Your task to perform on an android device: Go to notification settings Image 0: 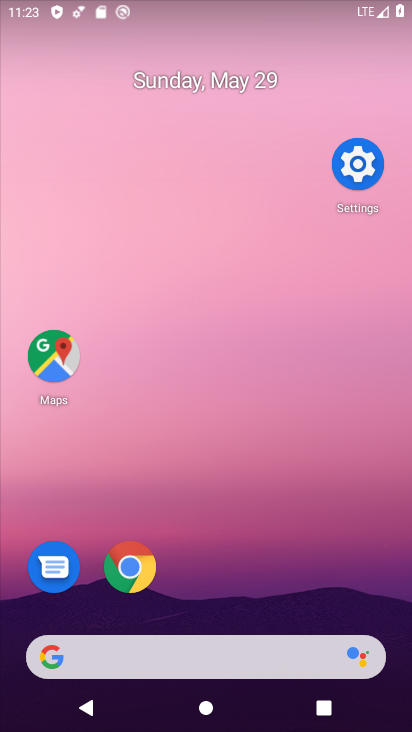
Step 0: drag from (347, 555) to (279, 162)
Your task to perform on an android device: Go to notification settings Image 1: 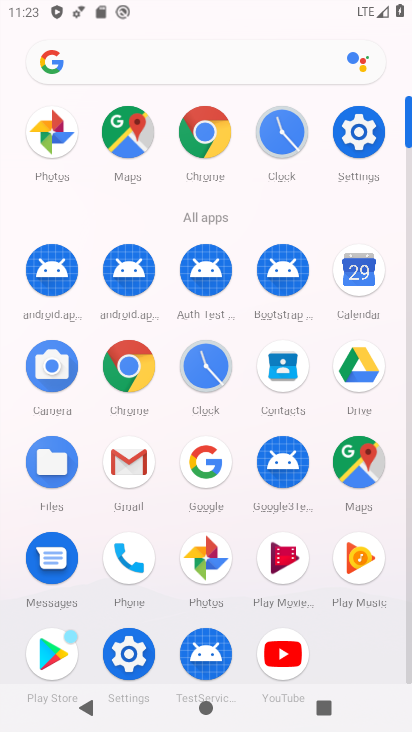
Step 1: click (133, 646)
Your task to perform on an android device: Go to notification settings Image 2: 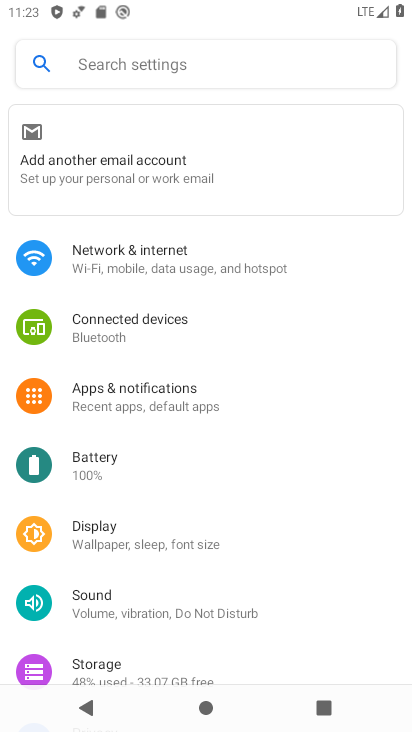
Step 2: click (148, 401)
Your task to perform on an android device: Go to notification settings Image 3: 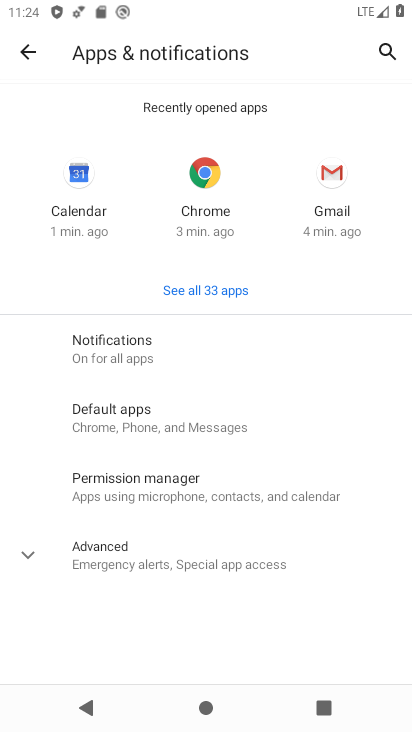
Step 3: click (182, 349)
Your task to perform on an android device: Go to notification settings Image 4: 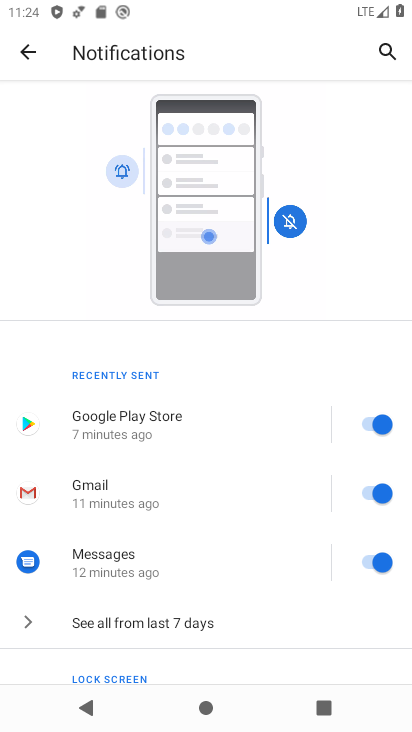
Step 4: drag from (247, 544) to (278, 240)
Your task to perform on an android device: Go to notification settings Image 5: 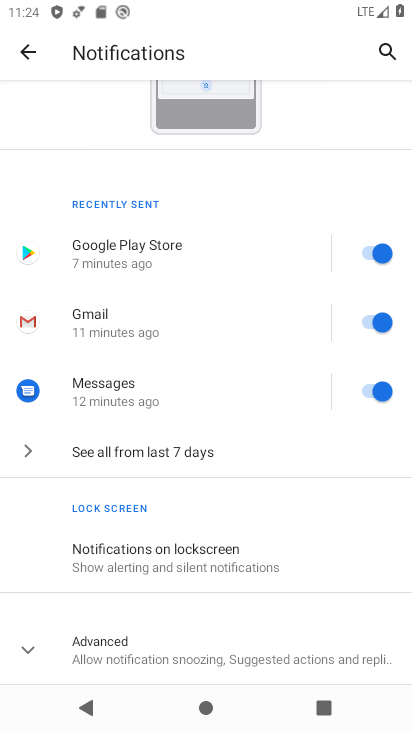
Step 5: click (218, 560)
Your task to perform on an android device: Go to notification settings Image 6: 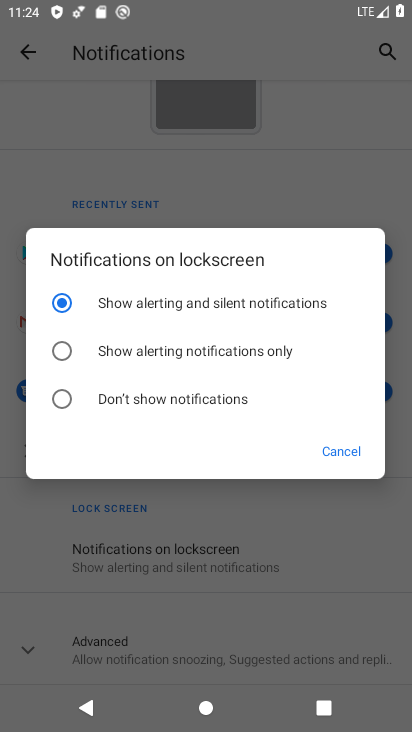
Step 6: click (335, 452)
Your task to perform on an android device: Go to notification settings Image 7: 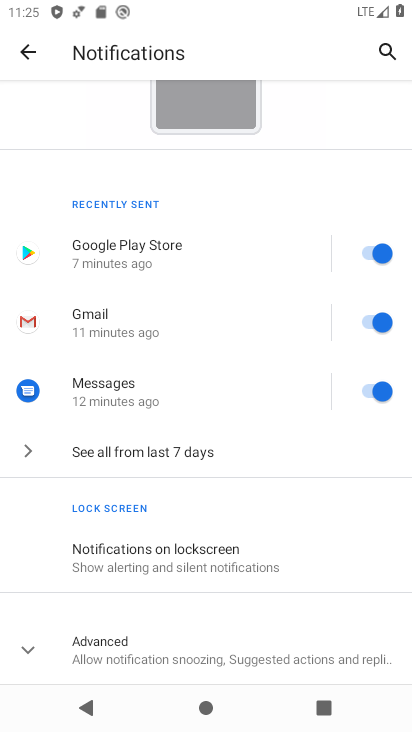
Step 7: task complete